Your task to perform on an android device: open a bookmark in the chrome app Image 0: 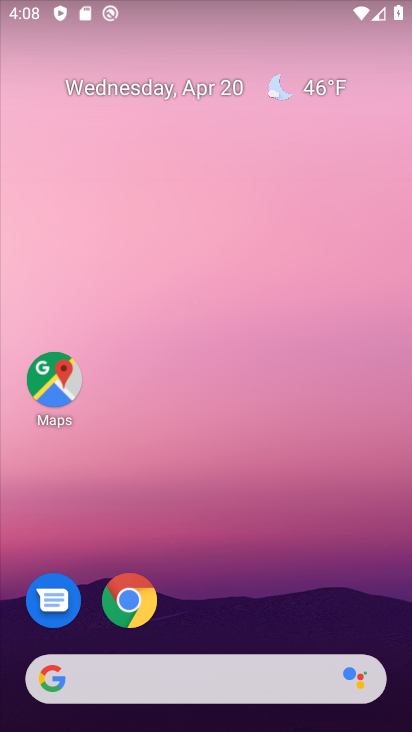
Step 0: click (130, 604)
Your task to perform on an android device: open a bookmark in the chrome app Image 1: 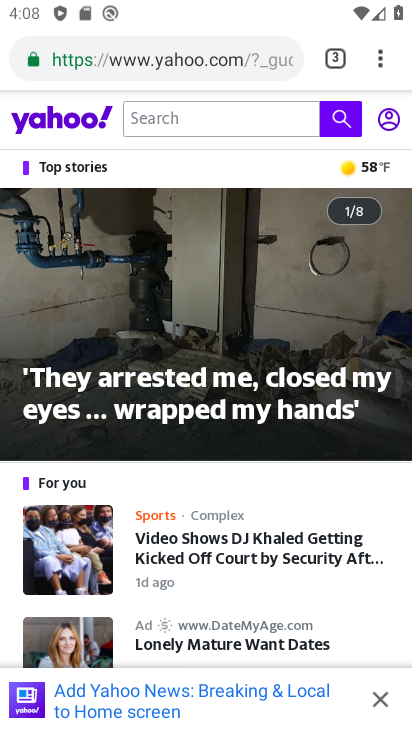
Step 1: click (379, 67)
Your task to perform on an android device: open a bookmark in the chrome app Image 2: 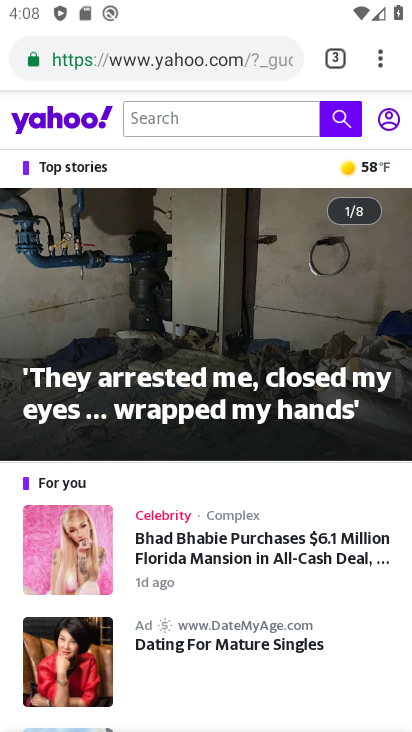
Step 2: click (378, 57)
Your task to perform on an android device: open a bookmark in the chrome app Image 3: 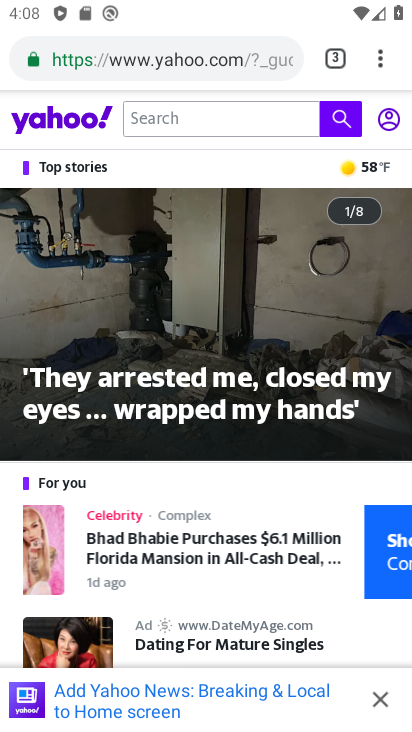
Step 3: click (378, 57)
Your task to perform on an android device: open a bookmark in the chrome app Image 4: 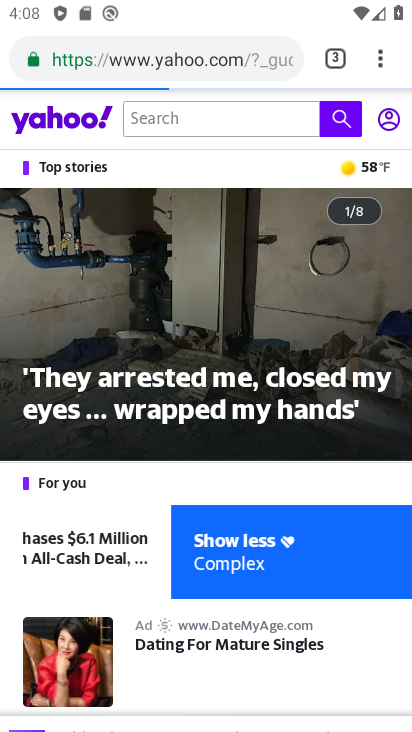
Step 4: click (378, 57)
Your task to perform on an android device: open a bookmark in the chrome app Image 5: 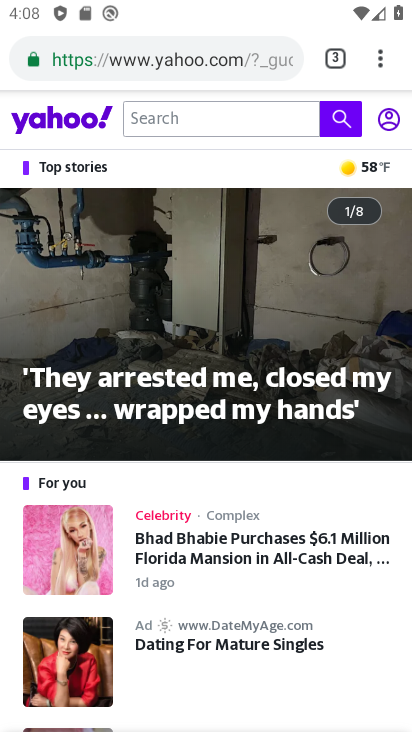
Step 5: click (378, 57)
Your task to perform on an android device: open a bookmark in the chrome app Image 6: 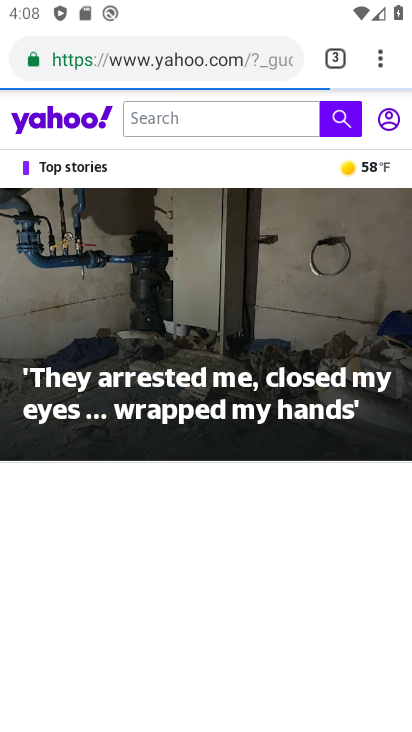
Step 6: click (378, 57)
Your task to perform on an android device: open a bookmark in the chrome app Image 7: 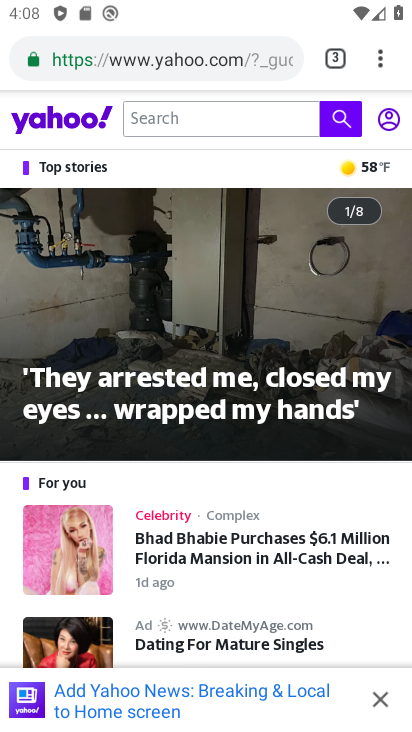
Step 7: click (378, 57)
Your task to perform on an android device: open a bookmark in the chrome app Image 8: 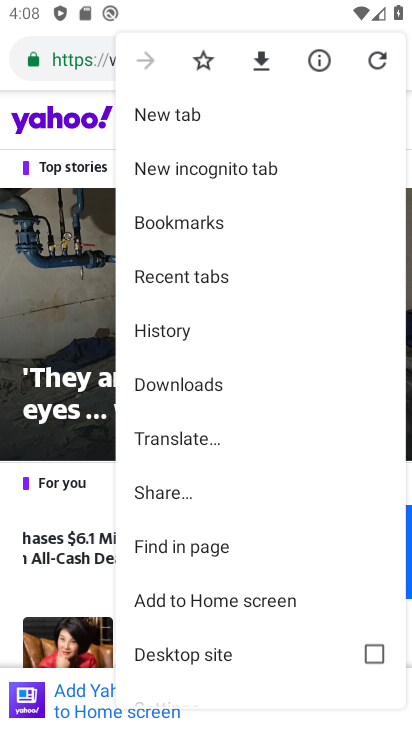
Step 8: click (190, 215)
Your task to perform on an android device: open a bookmark in the chrome app Image 9: 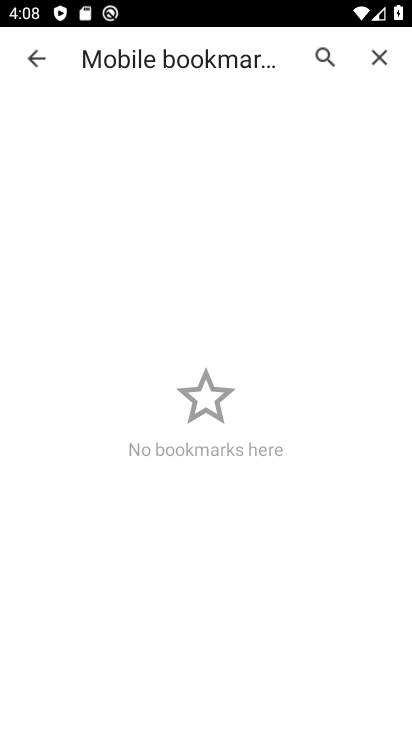
Step 9: task complete